Your task to perform on an android device: turn on bluetooth scan Image 0: 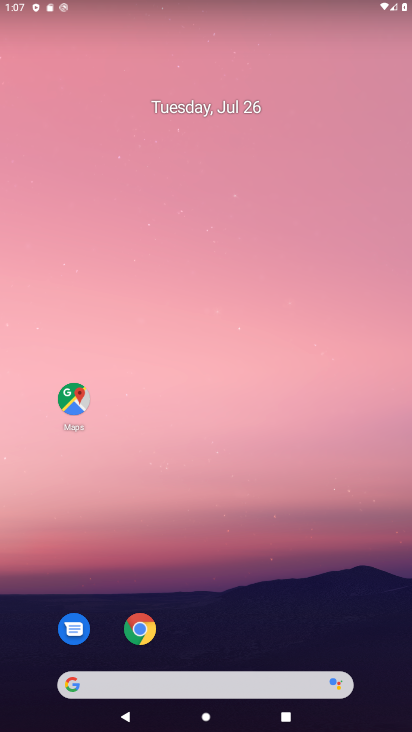
Step 0: drag from (48, 640) to (169, 2)
Your task to perform on an android device: turn on bluetooth scan Image 1: 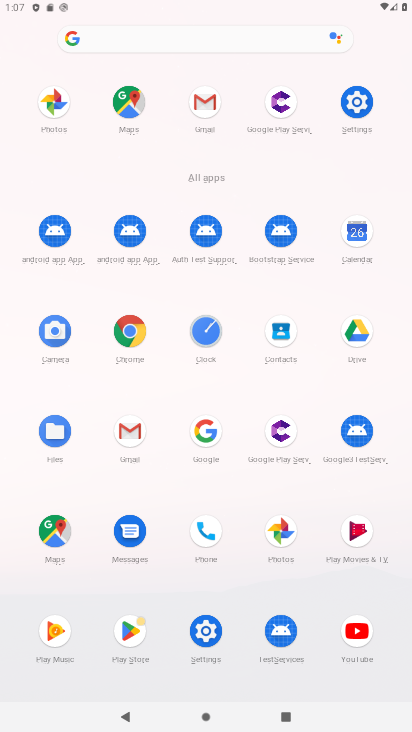
Step 1: click (350, 95)
Your task to perform on an android device: turn on bluetooth scan Image 2: 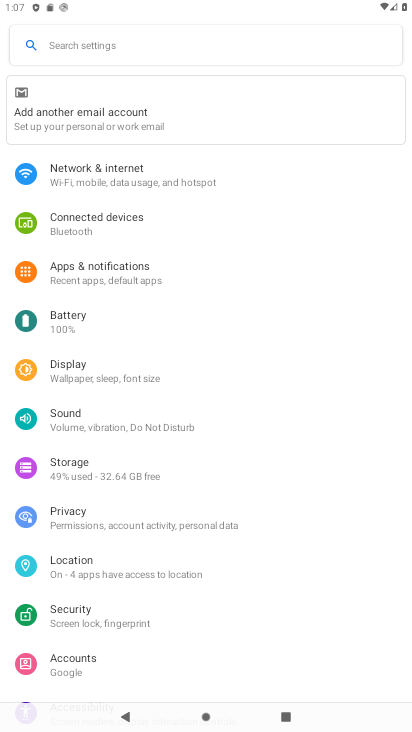
Step 2: click (109, 271)
Your task to perform on an android device: turn on bluetooth scan Image 3: 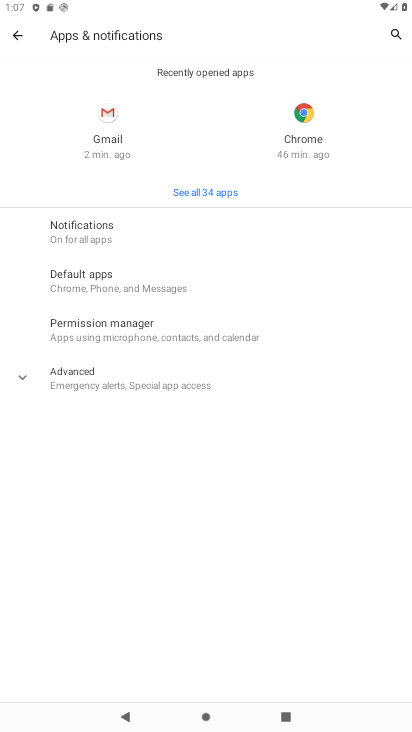
Step 3: press back button
Your task to perform on an android device: turn on bluetooth scan Image 4: 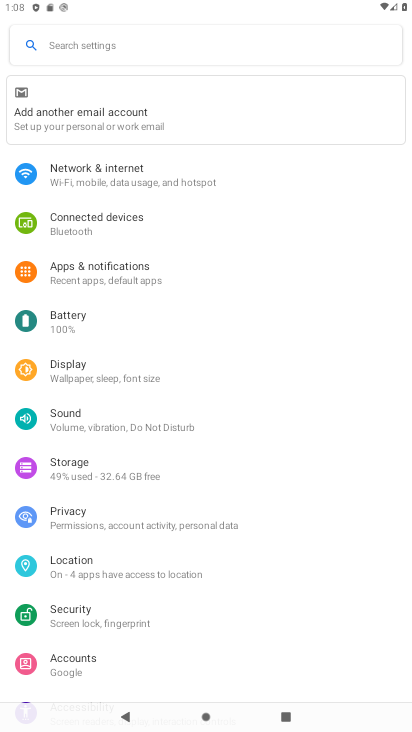
Step 4: drag from (132, 627) to (149, 462)
Your task to perform on an android device: turn on bluetooth scan Image 5: 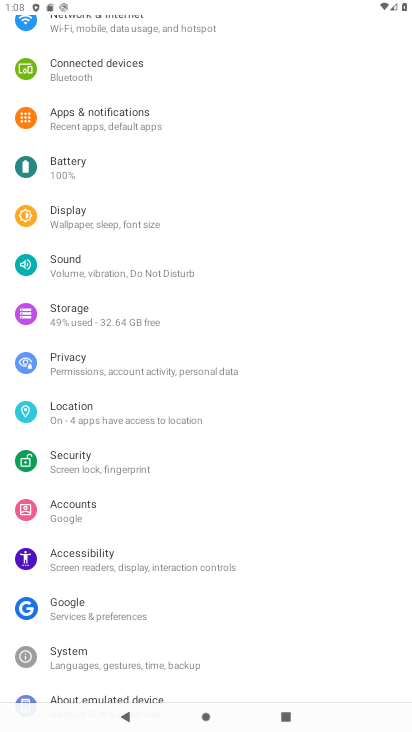
Step 5: click (130, 422)
Your task to perform on an android device: turn on bluetooth scan Image 6: 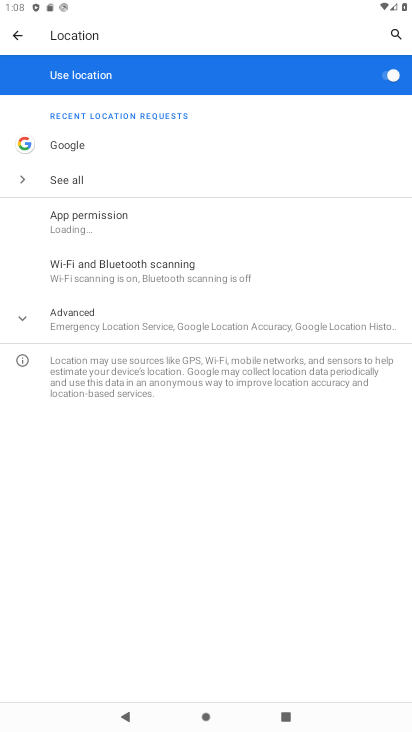
Step 6: click (169, 326)
Your task to perform on an android device: turn on bluetooth scan Image 7: 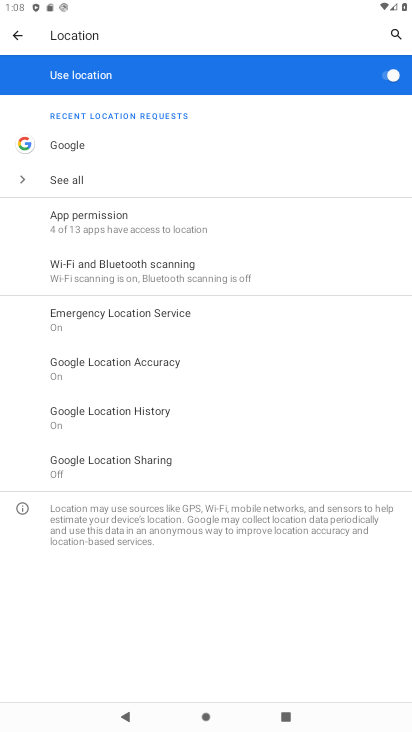
Step 7: click (143, 267)
Your task to perform on an android device: turn on bluetooth scan Image 8: 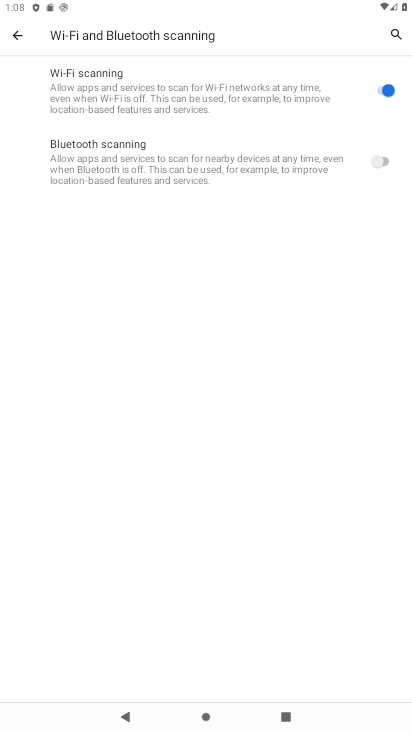
Step 8: click (388, 160)
Your task to perform on an android device: turn on bluetooth scan Image 9: 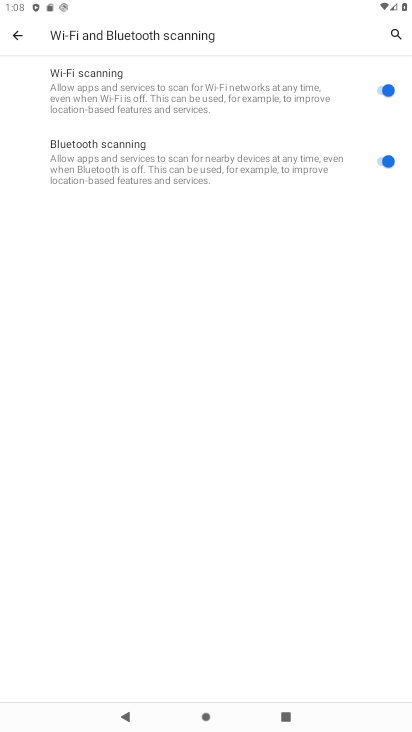
Step 9: task complete